Your task to perform on an android device: delete location history Image 0: 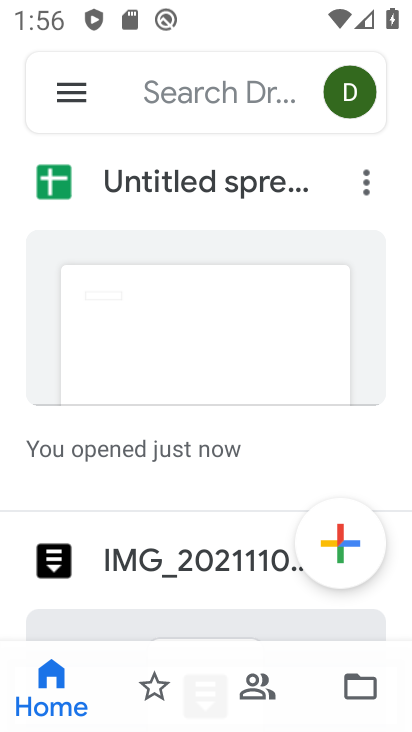
Step 0: press back button
Your task to perform on an android device: delete location history Image 1: 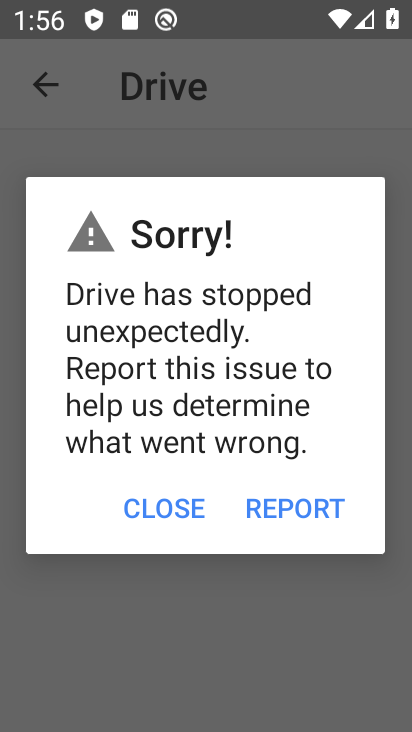
Step 1: press back button
Your task to perform on an android device: delete location history Image 2: 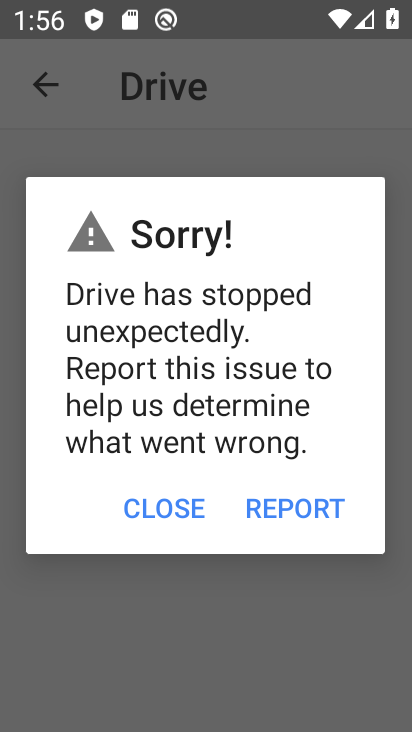
Step 2: press home button
Your task to perform on an android device: delete location history Image 3: 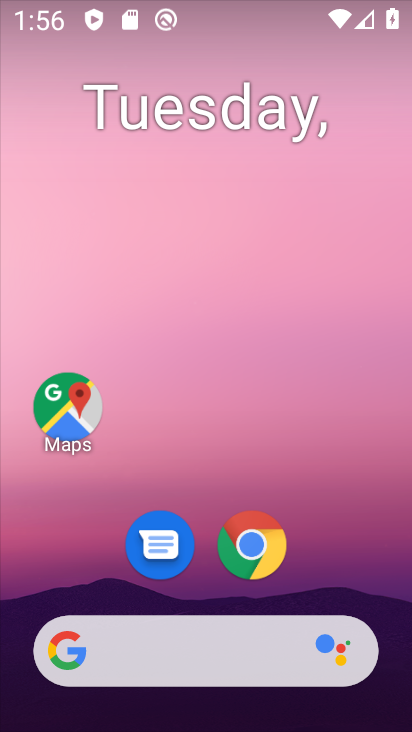
Step 3: drag from (323, 552) to (291, 37)
Your task to perform on an android device: delete location history Image 4: 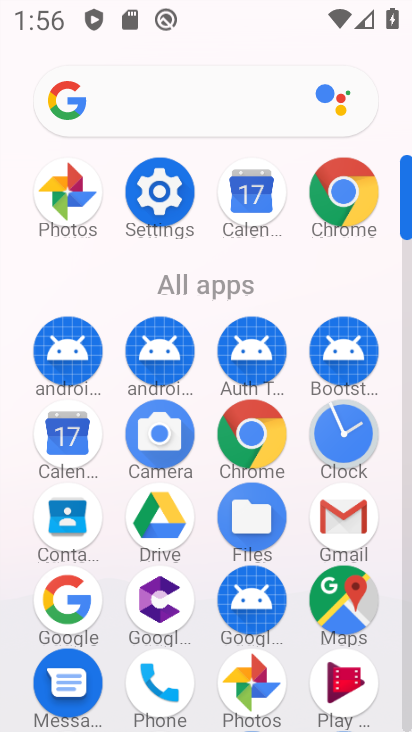
Step 4: click (155, 189)
Your task to perform on an android device: delete location history Image 5: 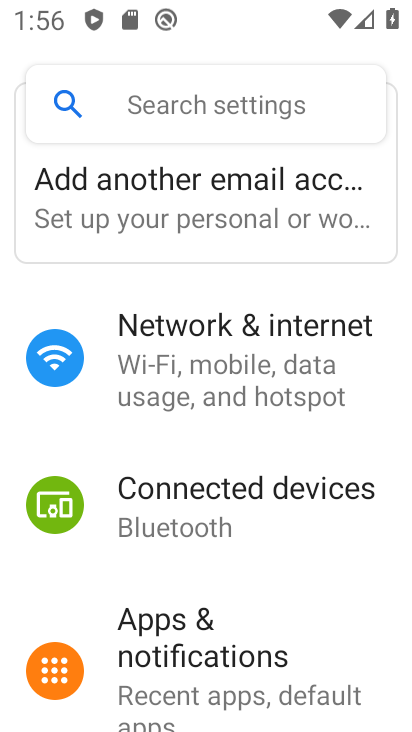
Step 5: drag from (204, 546) to (260, 58)
Your task to perform on an android device: delete location history Image 6: 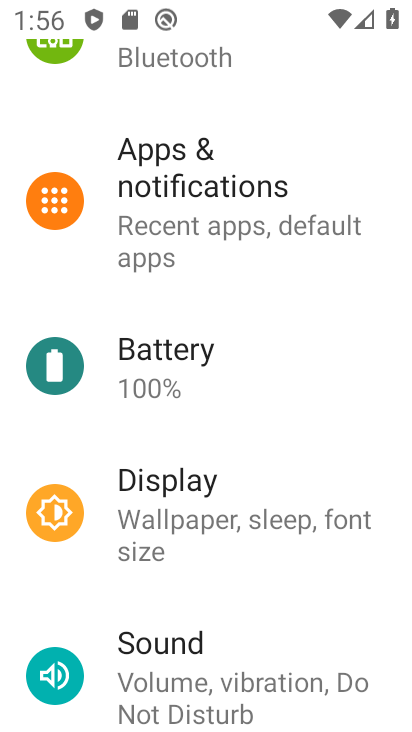
Step 6: drag from (251, 528) to (256, 163)
Your task to perform on an android device: delete location history Image 7: 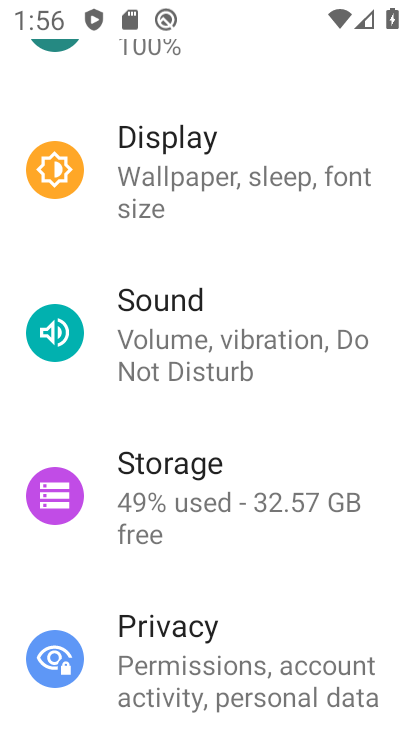
Step 7: drag from (215, 513) to (257, 147)
Your task to perform on an android device: delete location history Image 8: 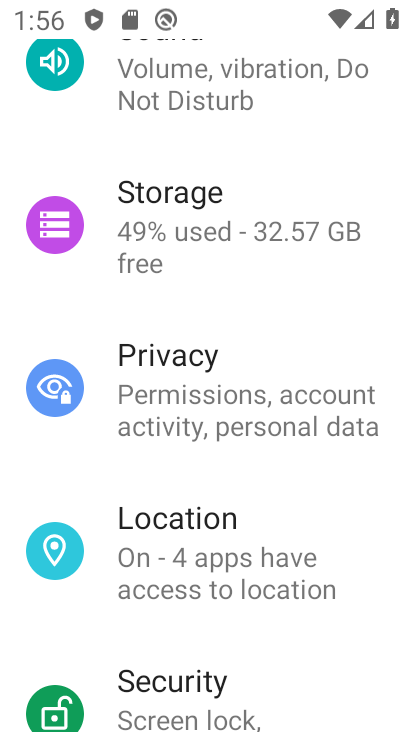
Step 8: click (207, 528)
Your task to perform on an android device: delete location history Image 9: 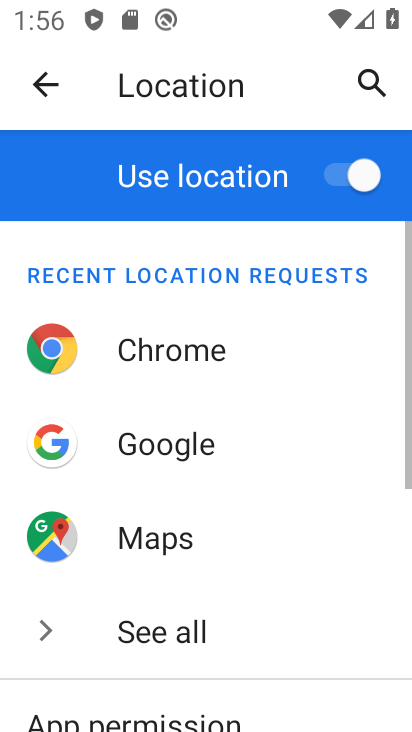
Step 9: drag from (272, 571) to (264, 135)
Your task to perform on an android device: delete location history Image 10: 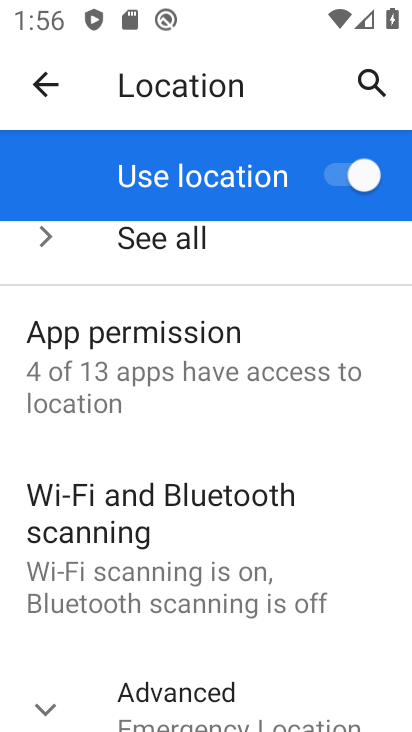
Step 10: drag from (128, 622) to (154, 234)
Your task to perform on an android device: delete location history Image 11: 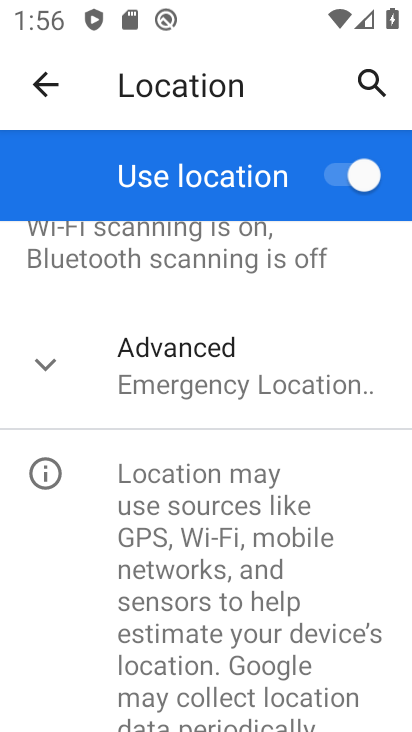
Step 11: click (78, 619)
Your task to perform on an android device: delete location history Image 12: 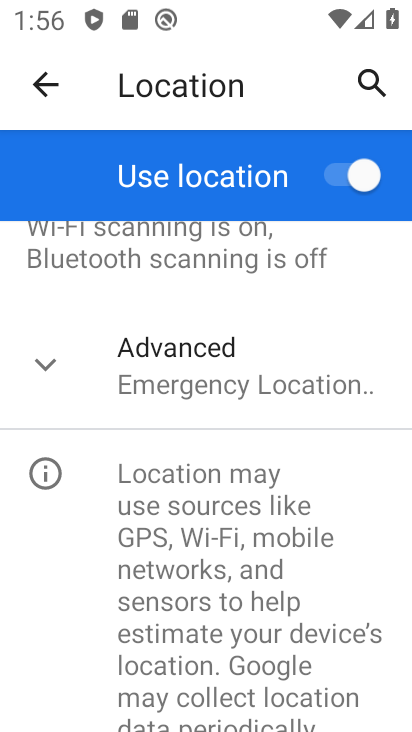
Step 12: click (36, 625)
Your task to perform on an android device: delete location history Image 13: 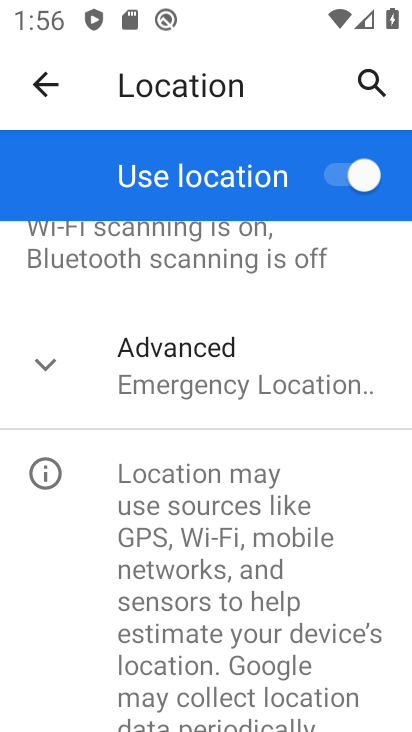
Step 13: click (60, 356)
Your task to perform on an android device: delete location history Image 14: 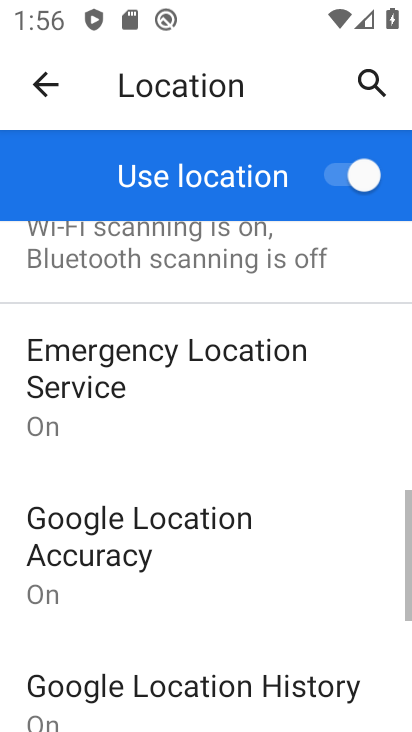
Step 14: drag from (243, 616) to (267, 264)
Your task to perform on an android device: delete location history Image 15: 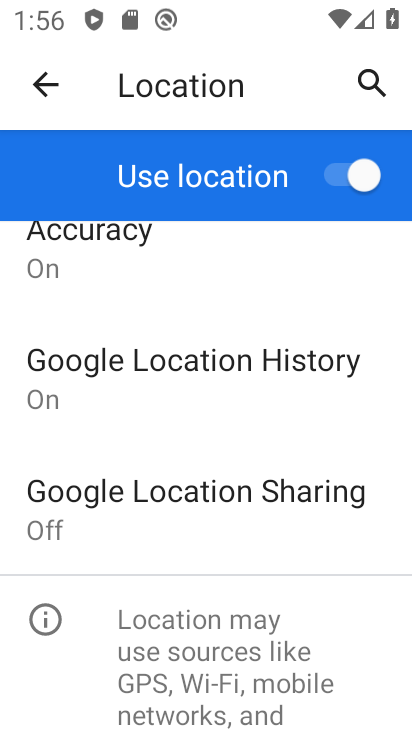
Step 15: click (185, 351)
Your task to perform on an android device: delete location history Image 16: 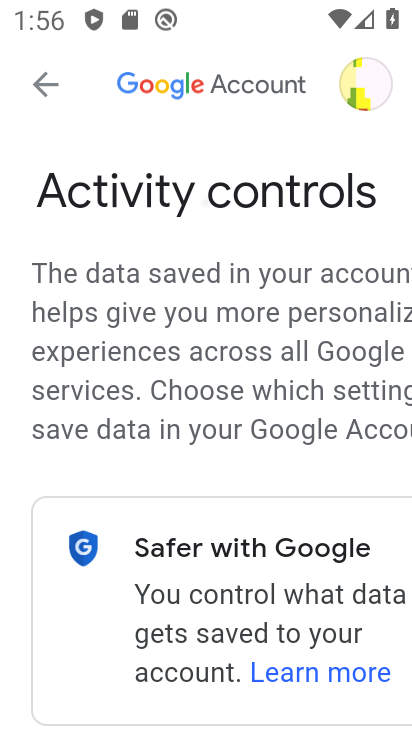
Step 16: drag from (162, 626) to (126, 202)
Your task to perform on an android device: delete location history Image 17: 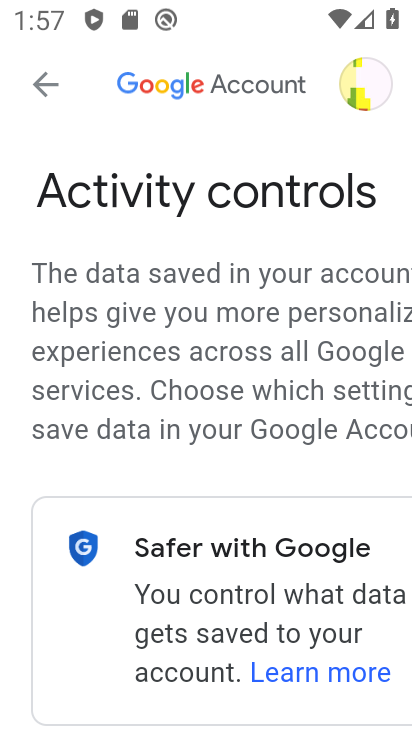
Step 17: drag from (153, 573) to (116, 144)
Your task to perform on an android device: delete location history Image 18: 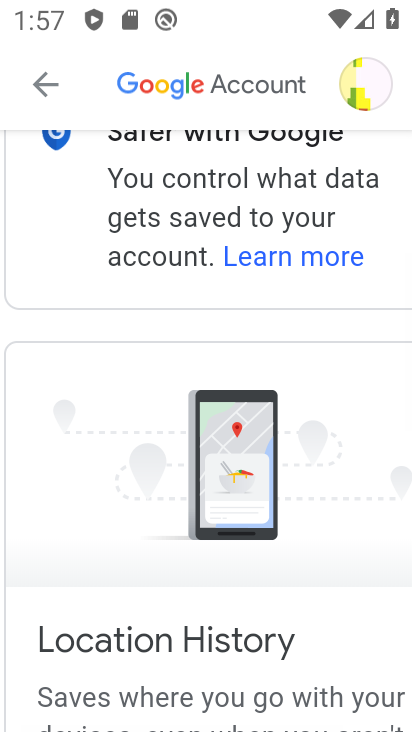
Step 18: drag from (142, 550) to (142, 206)
Your task to perform on an android device: delete location history Image 19: 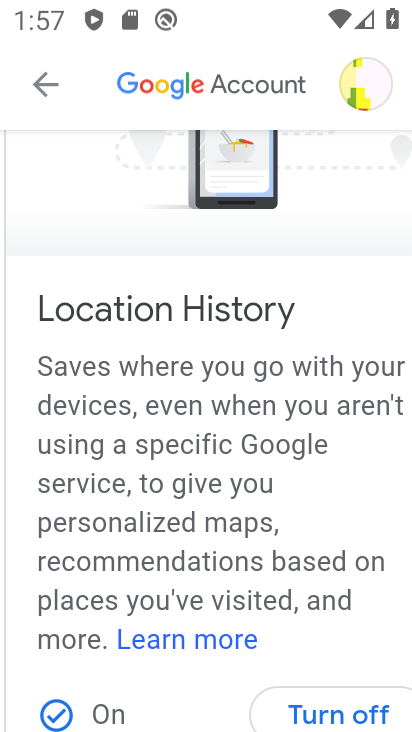
Step 19: drag from (183, 602) to (185, 177)
Your task to perform on an android device: delete location history Image 20: 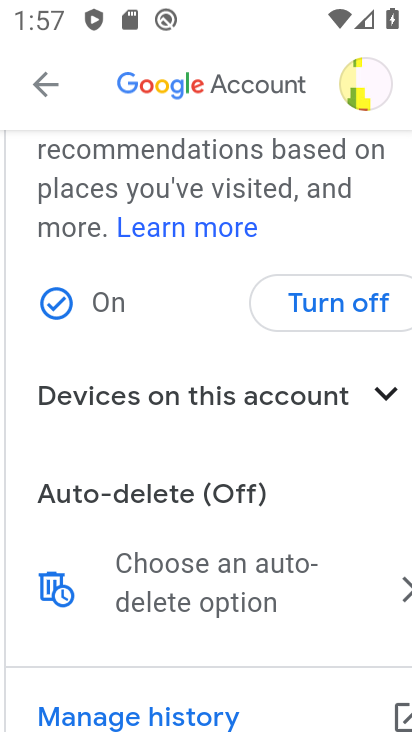
Step 20: click (88, 576)
Your task to perform on an android device: delete location history Image 21: 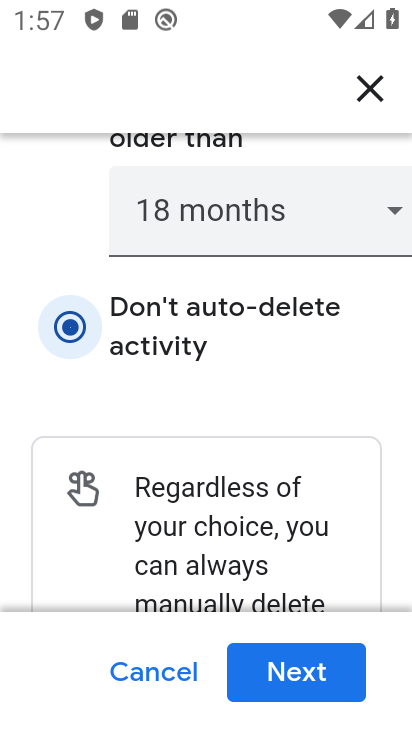
Step 21: click (250, 678)
Your task to perform on an android device: delete location history Image 22: 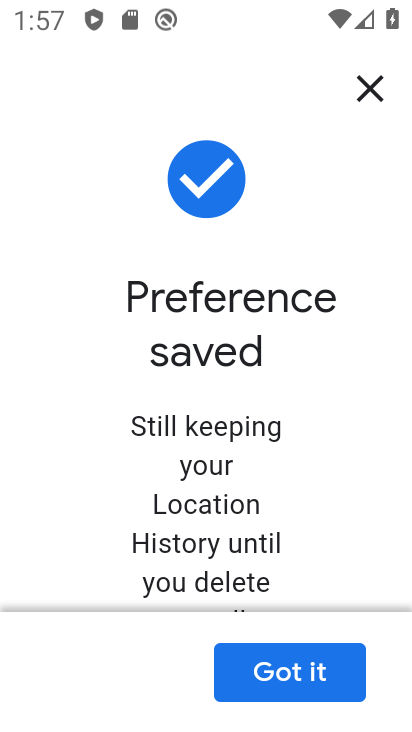
Step 22: task complete